Your task to perform on an android device: Is it going to rain this weekend? Image 0: 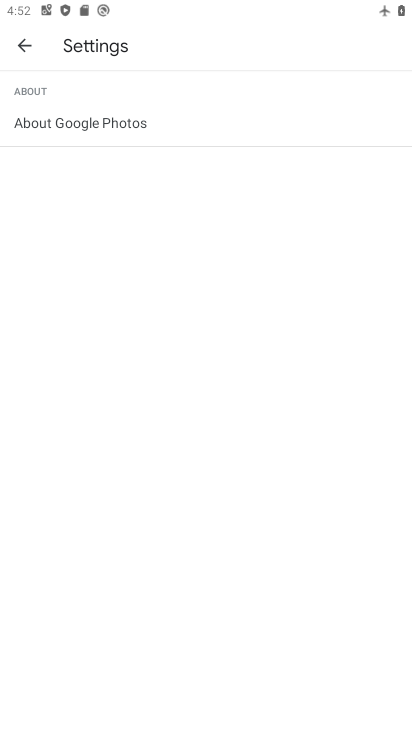
Step 0: press back button
Your task to perform on an android device: Is it going to rain this weekend? Image 1: 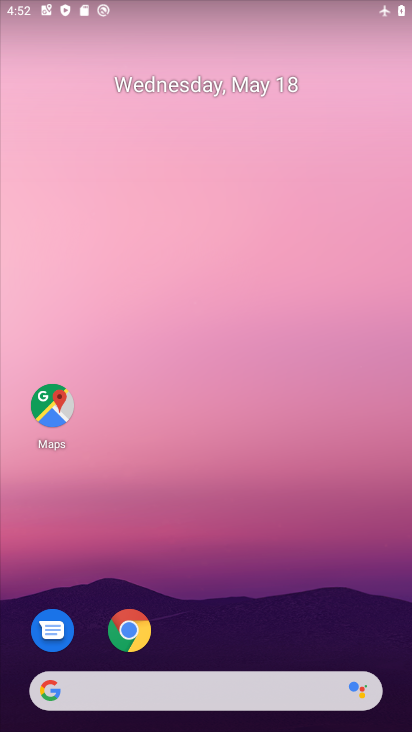
Step 1: click (129, 628)
Your task to perform on an android device: Is it going to rain this weekend? Image 2: 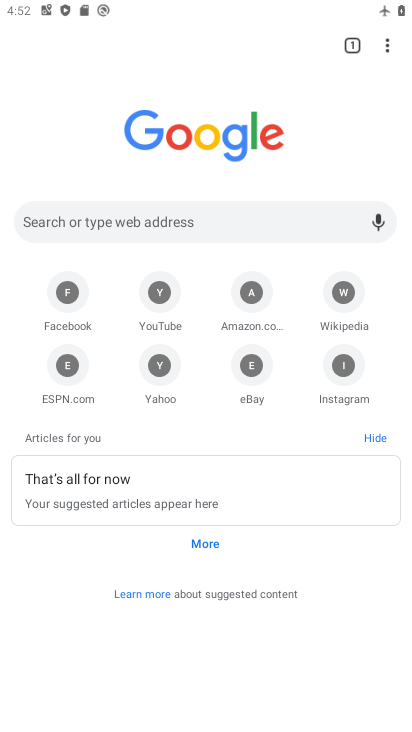
Step 2: click (176, 223)
Your task to perform on an android device: Is it going to rain this weekend? Image 3: 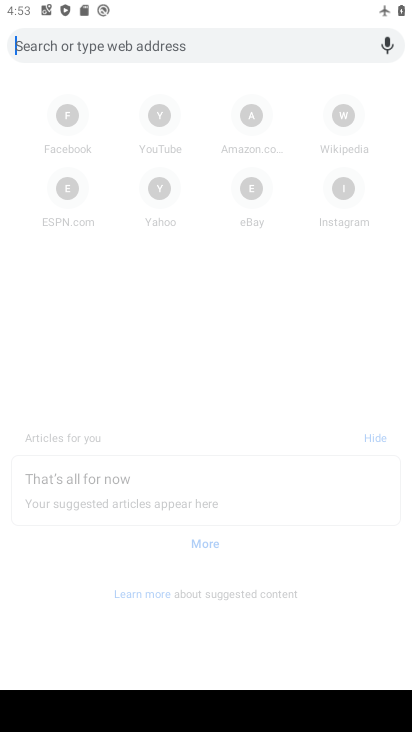
Step 3: type "Is it going to rain this weekend"
Your task to perform on an android device: Is it going to rain this weekend? Image 4: 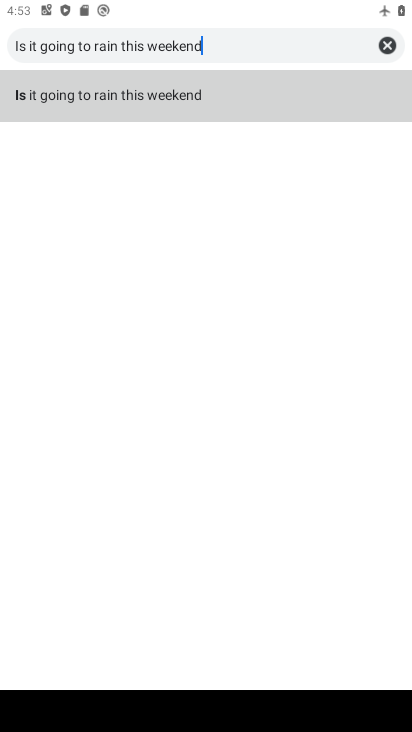
Step 4: type ""
Your task to perform on an android device: Is it going to rain this weekend? Image 5: 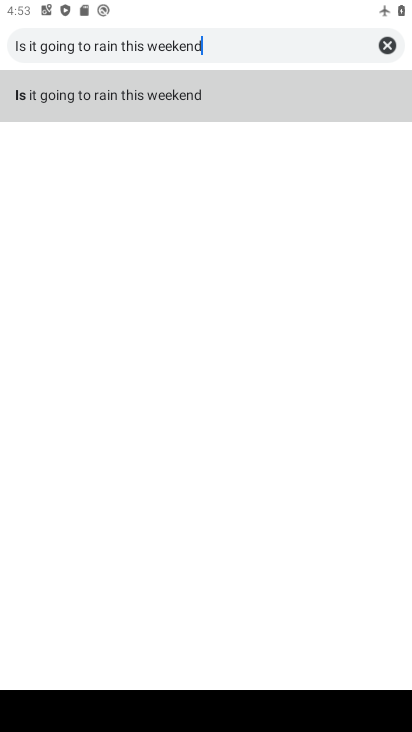
Step 5: click (134, 96)
Your task to perform on an android device: Is it going to rain this weekend? Image 6: 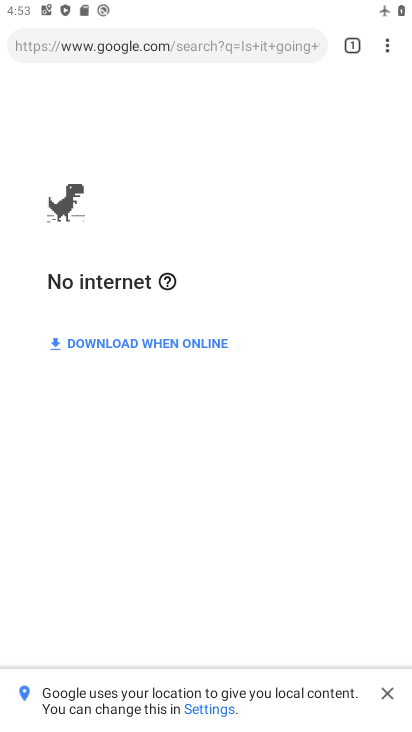
Step 6: task complete